Your task to perform on an android device: Do I have any events tomorrow? Image 0: 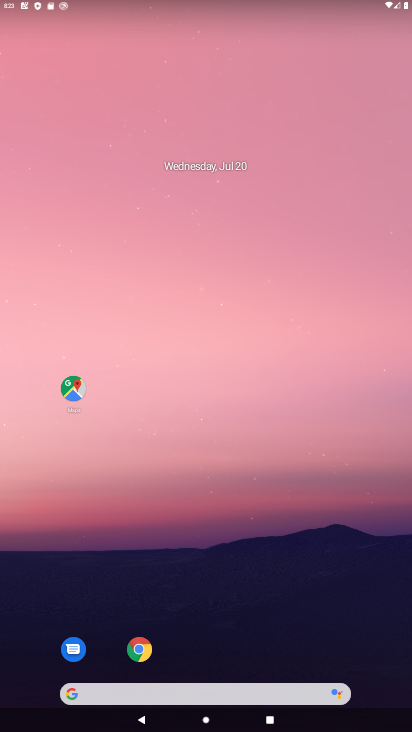
Step 0: drag from (215, 644) to (184, 109)
Your task to perform on an android device: Do I have any events tomorrow? Image 1: 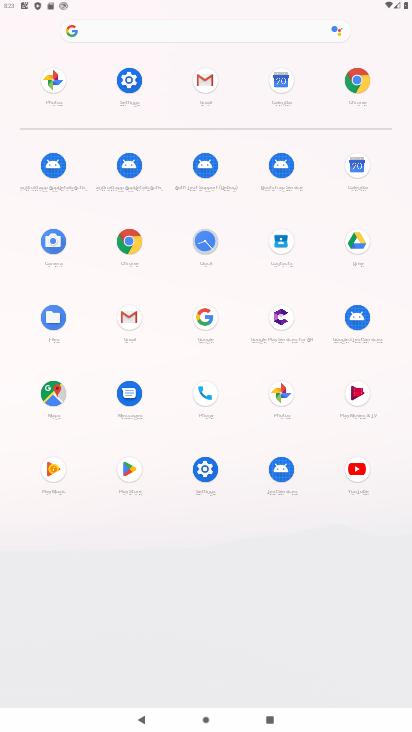
Step 1: click (274, 96)
Your task to perform on an android device: Do I have any events tomorrow? Image 2: 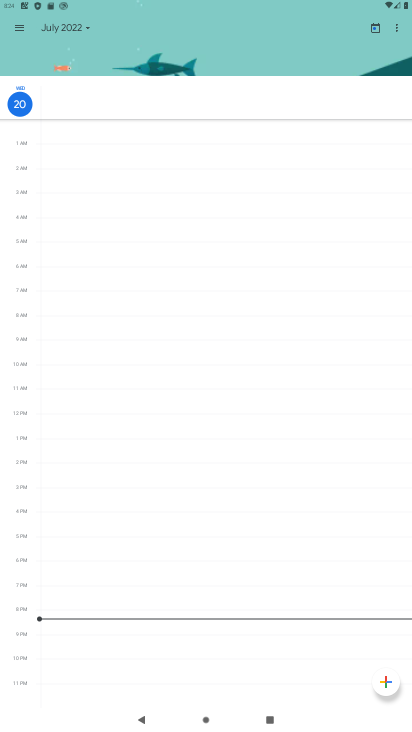
Step 2: task complete